Your task to perform on an android device: Is it going to rain tomorrow? Image 0: 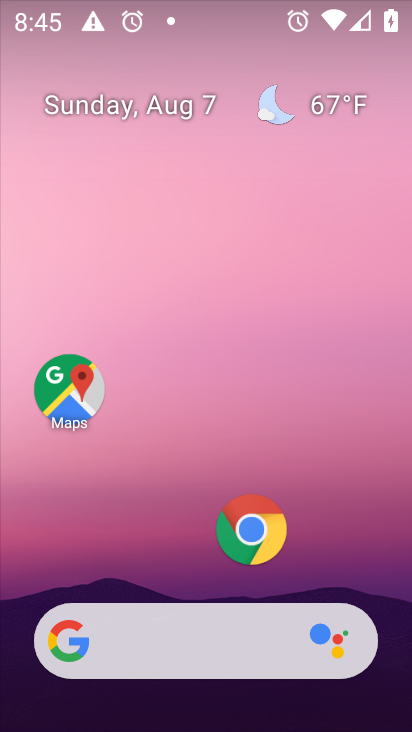
Step 0: click (320, 105)
Your task to perform on an android device: Is it going to rain tomorrow? Image 1: 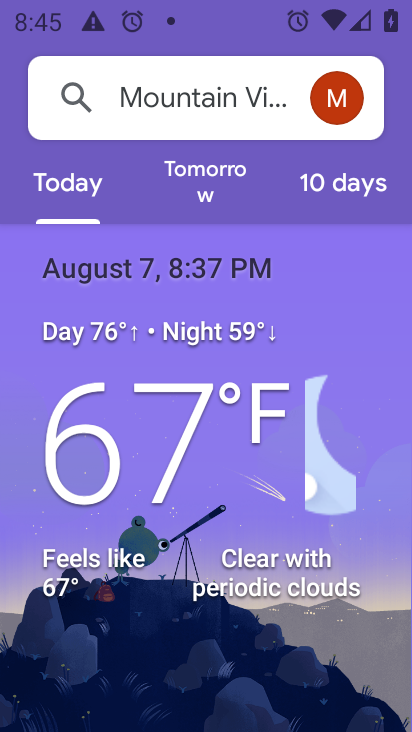
Step 1: click (206, 200)
Your task to perform on an android device: Is it going to rain tomorrow? Image 2: 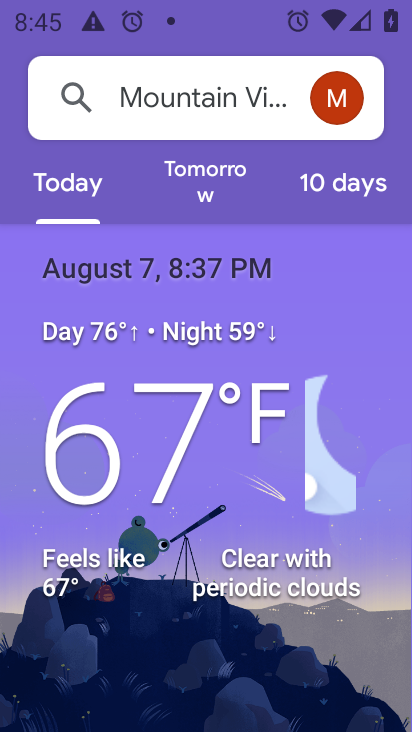
Step 2: click (219, 198)
Your task to perform on an android device: Is it going to rain tomorrow? Image 3: 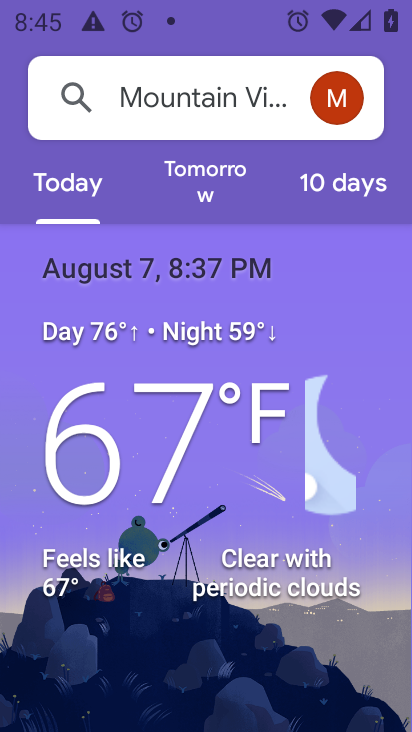
Step 3: click (221, 180)
Your task to perform on an android device: Is it going to rain tomorrow? Image 4: 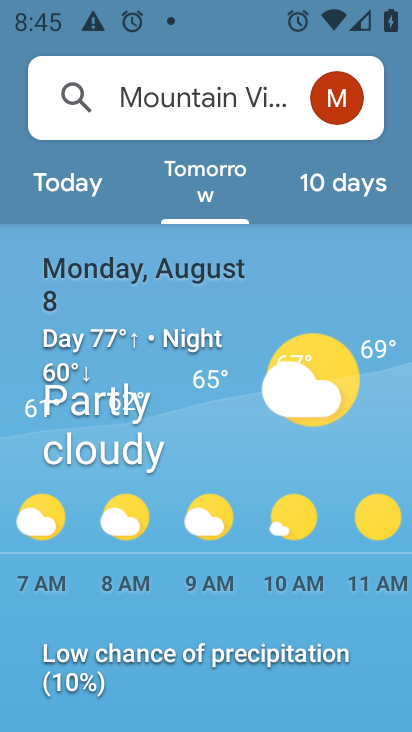
Step 4: task complete